Your task to perform on an android device: What's the weather going to be tomorrow? Image 0: 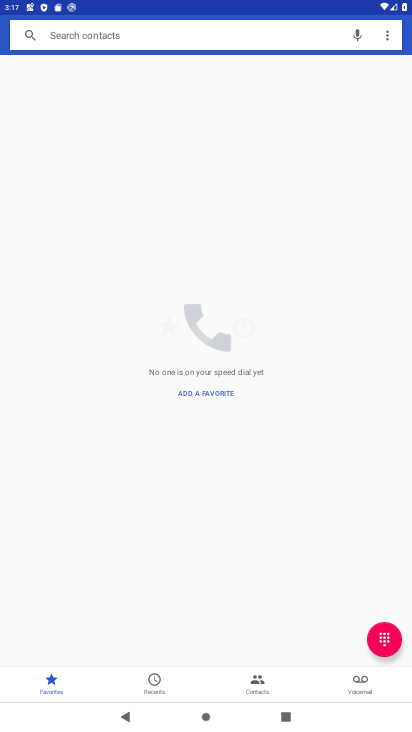
Step 0: press home button
Your task to perform on an android device: What's the weather going to be tomorrow? Image 1: 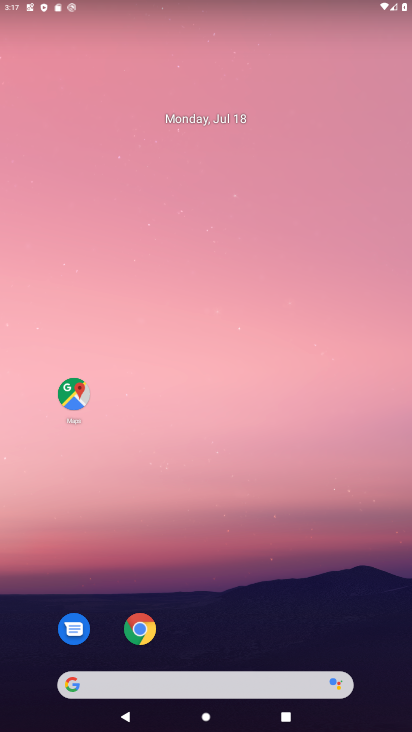
Step 1: drag from (200, 632) to (202, 285)
Your task to perform on an android device: What's the weather going to be tomorrow? Image 2: 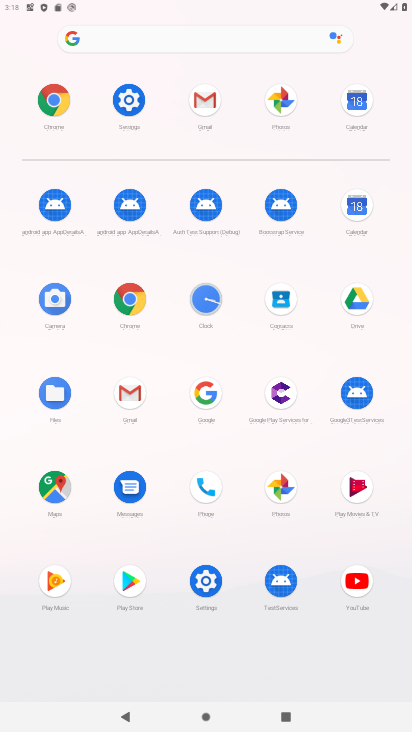
Step 2: click (214, 401)
Your task to perform on an android device: What's the weather going to be tomorrow? Image 3: 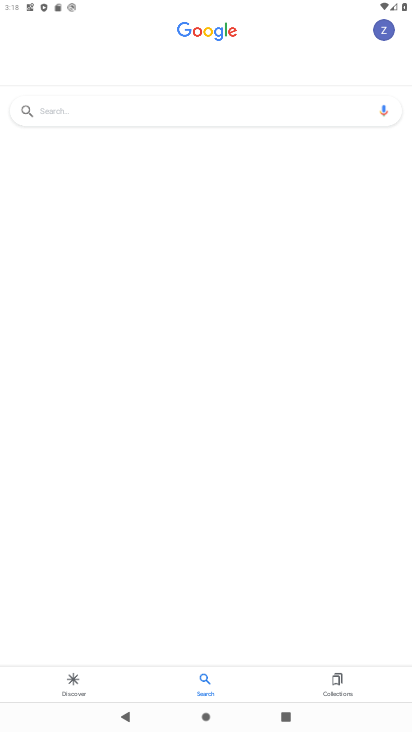
Step 3: click (86, 105)
Your task to perform on an android device: What's the weather going to be tomorrow? Image 4: 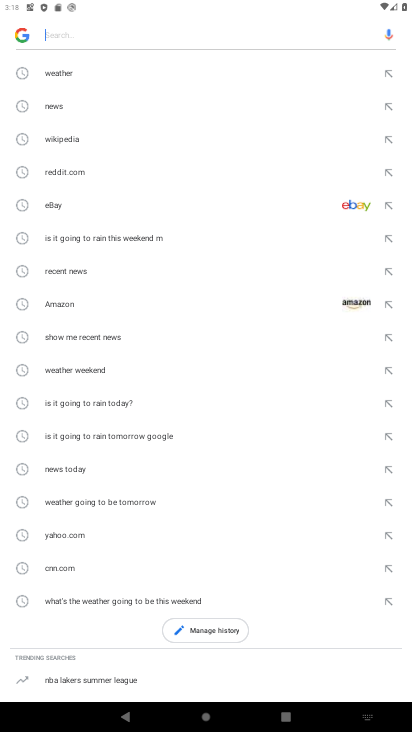
Step 4: click (88, 73)
Your task to perform on an android device: What's the weather going to be tomorrow? Image 5: 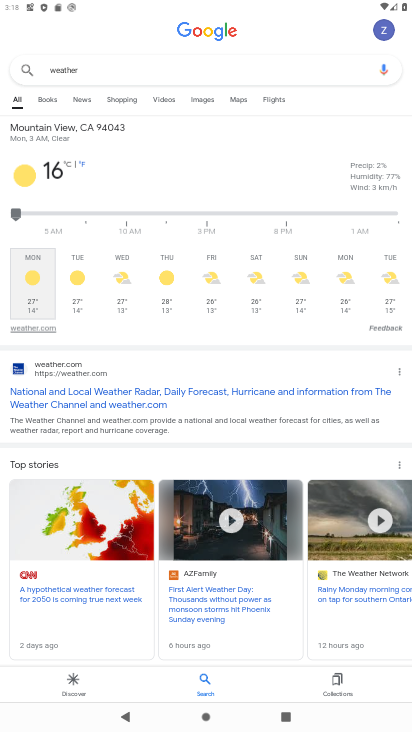
Step 5: task complete